Your task to perform on an android device: turn on data saver in the chrome app Image 0: 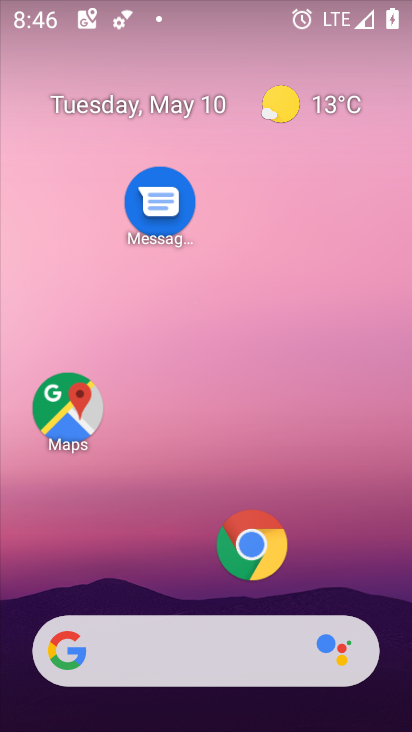
Step 0: click (250, 543)
Your task to perform on an android device: turn on data saver in the chrome app Image 1: 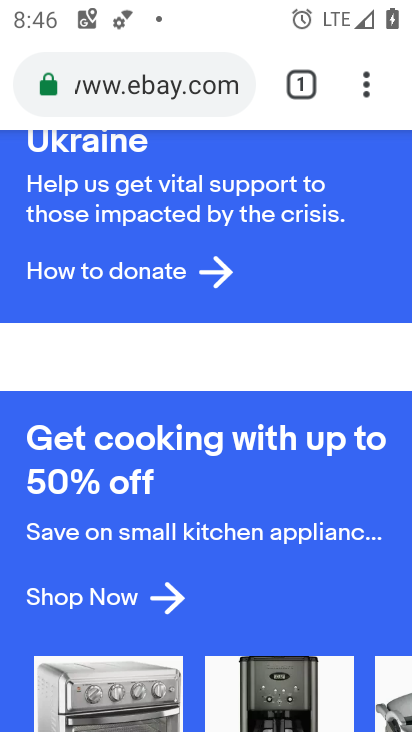
Step 1: click (367, 86)
Your task to perform on an android device: turn on data saver in the chrome app Image 2: 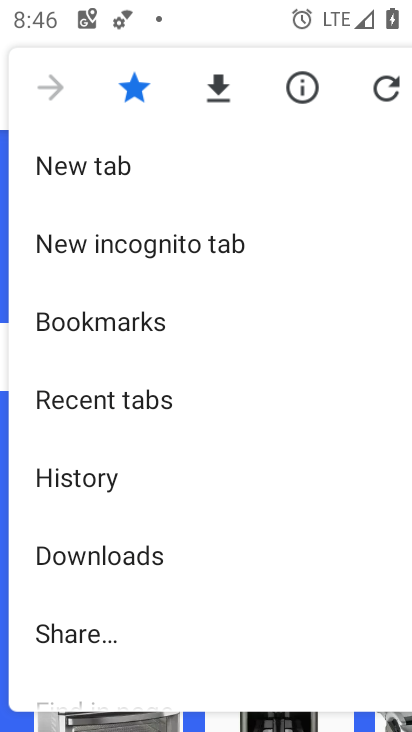
Step 2: drag from (211, 578) to (238, 105)
Your task to perform on an android device: turn on data saver in the chrome app Image 3: 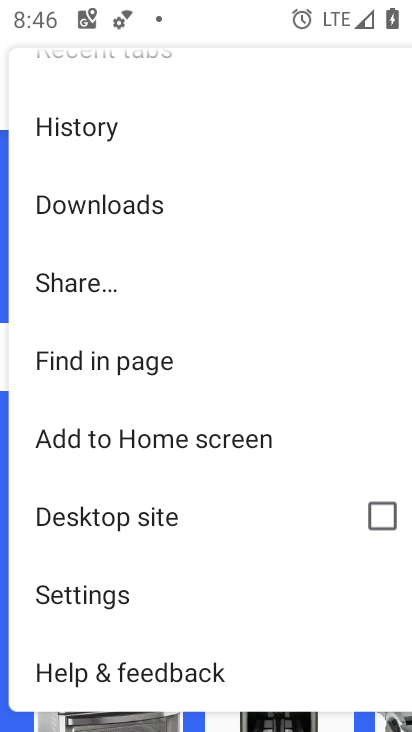
Step 3: click (128, 587)
Your task to perform on an android device: turn on data saver in the chrome app Image 4: 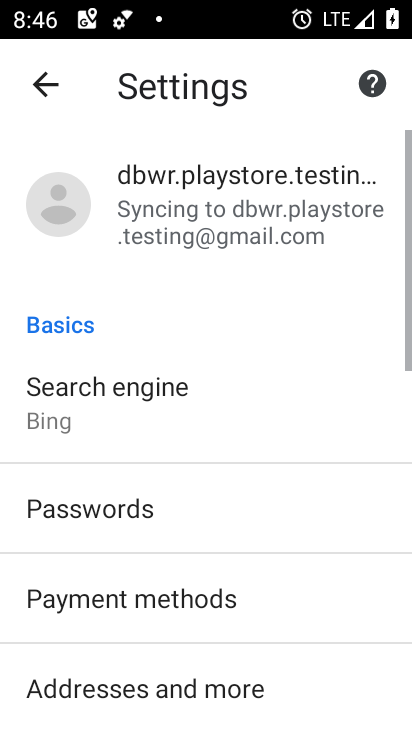
Step 4: drag from (224, 652) to (271, 140)
Your task to perform on an android device: turn on data saver in the chrome app Image 5: 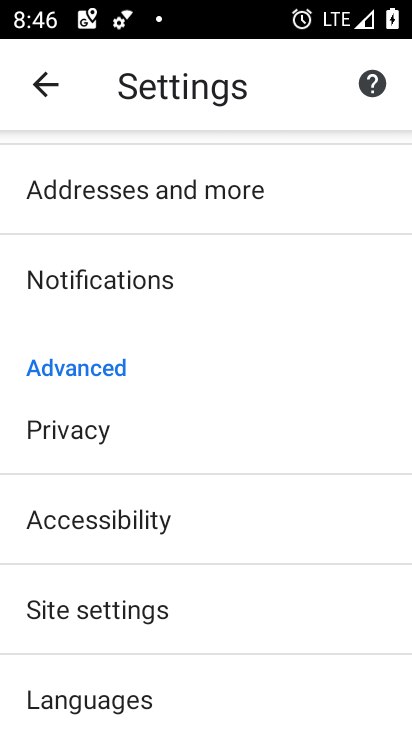
Step 5: drag from (179, 660) to (197, 282)
Your task to perform on an android device: turn on data saver in the chrome app Image 6: 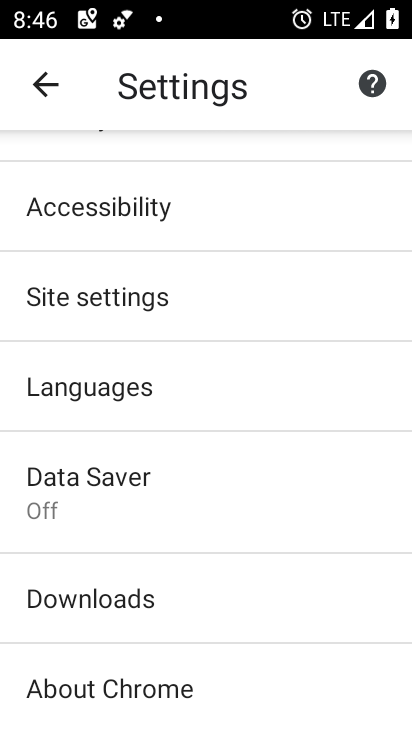
Step 6: click (104, 501)
Your task to perform on an android device: turn on data saver in the chrome app Image 7: 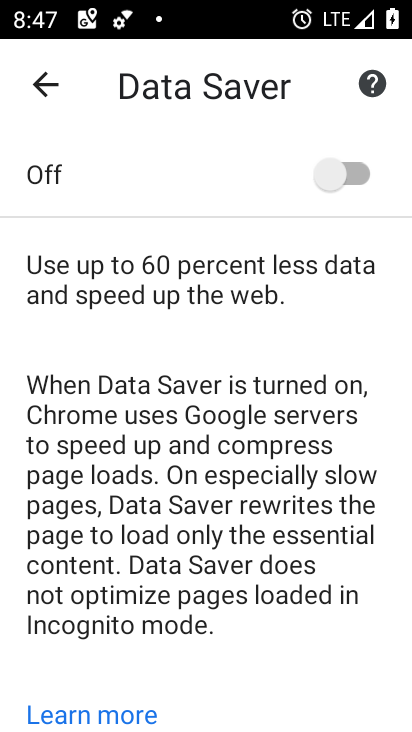
Step 7: click (356, 169)
Your task to perform on an android device: turn on data saver in the chrome app Image 8: 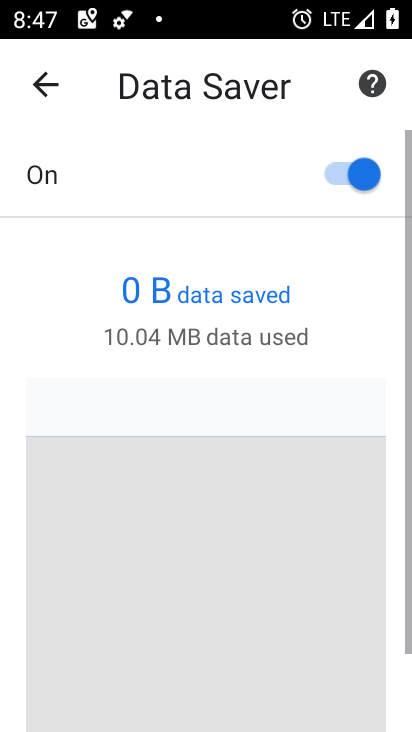
Step 8: task complete